Your task to perform on an android device: change the clock display to digital Image 0: 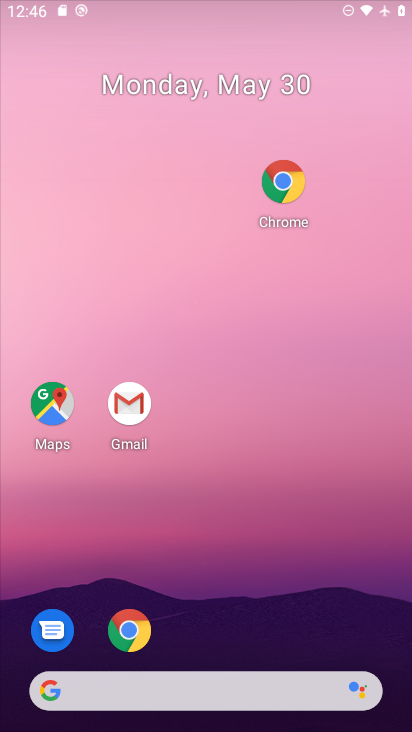
Step 0: drag from (218, 701) to (171, 245)
Your task to perform on an android device: change the clock display to digital Image 1: 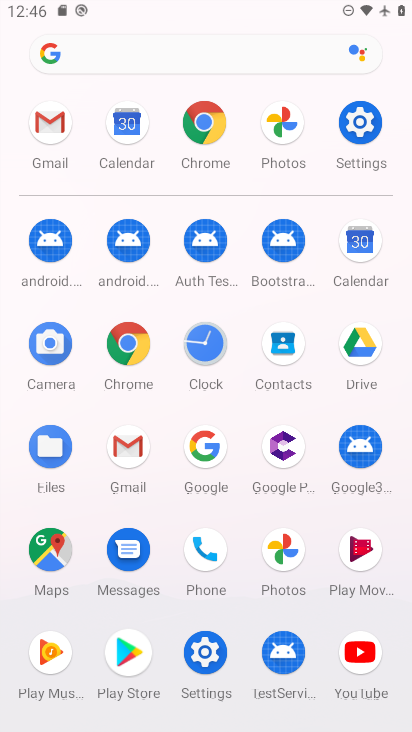
Step 1: click (220, 336)
Your task to perform on an android device: change the clock display to digital Image 2: 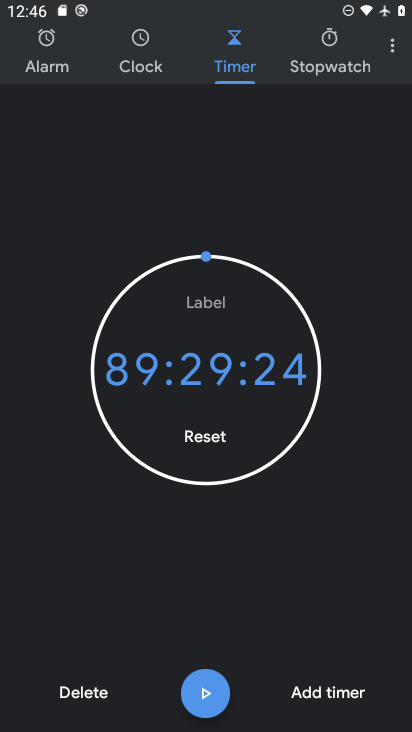
Step 2: click (391, 46)
Your task to perform on an android device: change the clock display to digital Image 3: 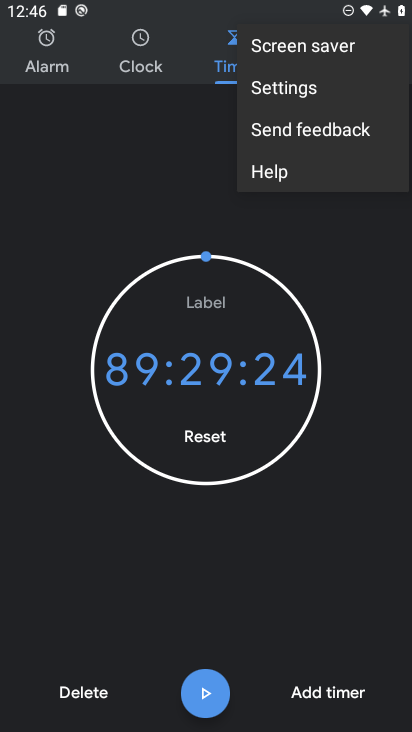
Step 3: click (304, 86)
Your task to perform on an android device: change the clock display to digital Image 4: 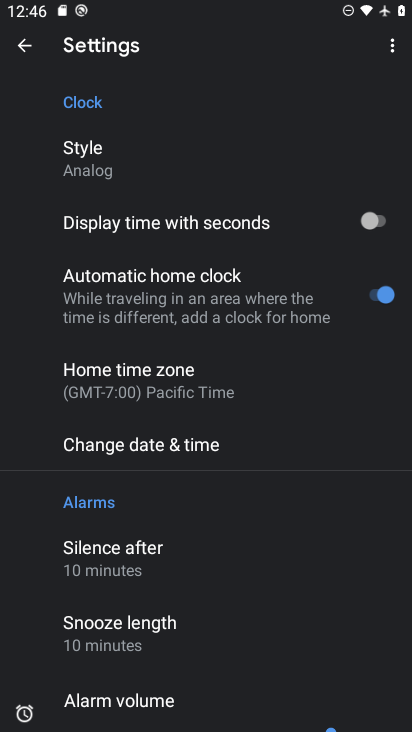
Step 4: click (165, 151)
Your task to perform on an android device: change the clock display to digital Image 5: 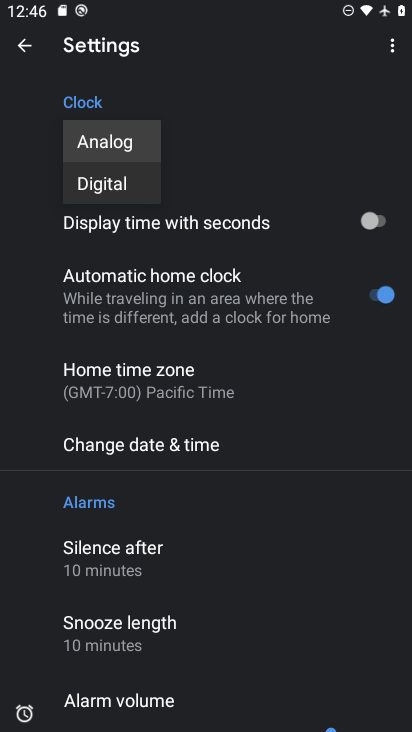
Step 5: click (111, 192)
Your task to perform on an android device: change the clock display to digital Image 6: 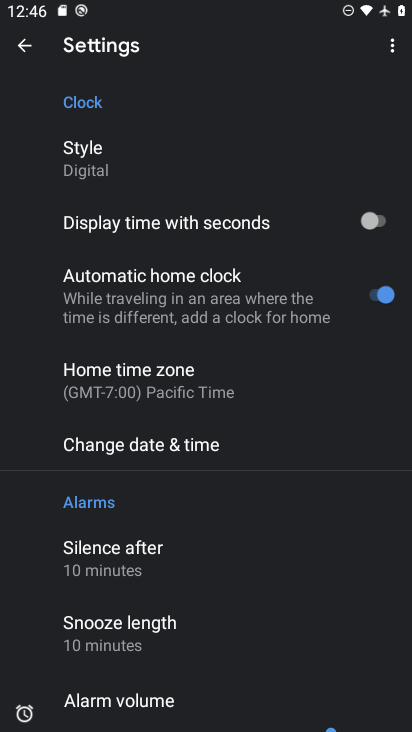
Step 6: task complete